Your task to perform on an android device: read, delete, or share a saved page in the chrome app Image 0: 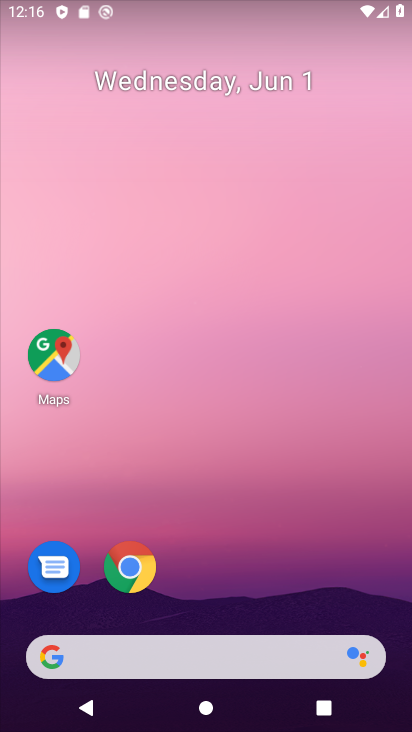
Step 0: click (132, 569)
Your task to perform on an android device: read, delete, or share a saved page in the chrome app Image 1: 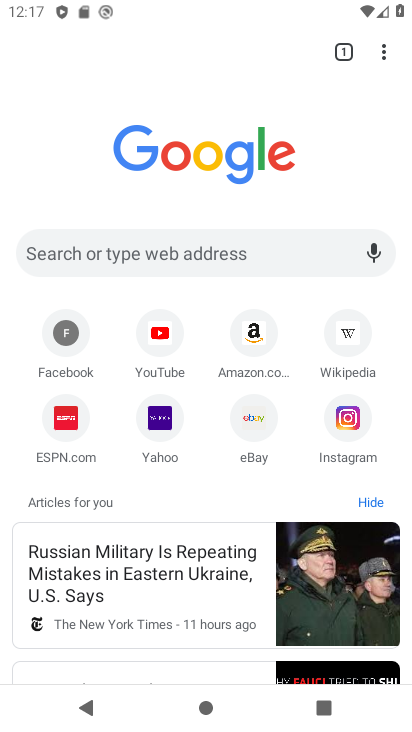
Step 1: click (375, 55)
Your task to perform on an android device: read, delete, or share a saved page in the chrome app Image 2: 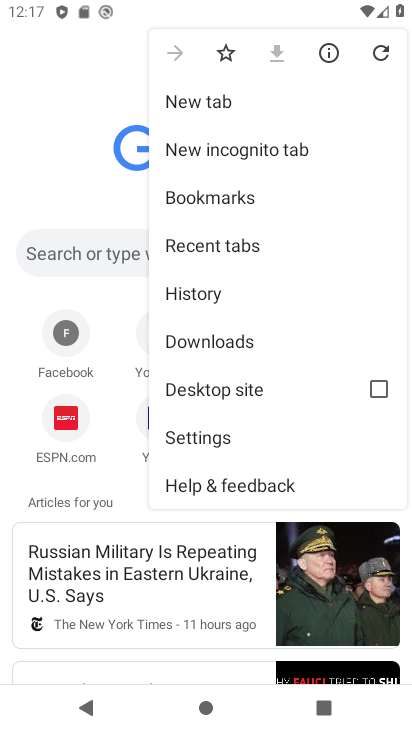
Step 2: click (200, 339)
Your task to perform on an android device: read, delete, or share a saved page in the chrome app Image 3: 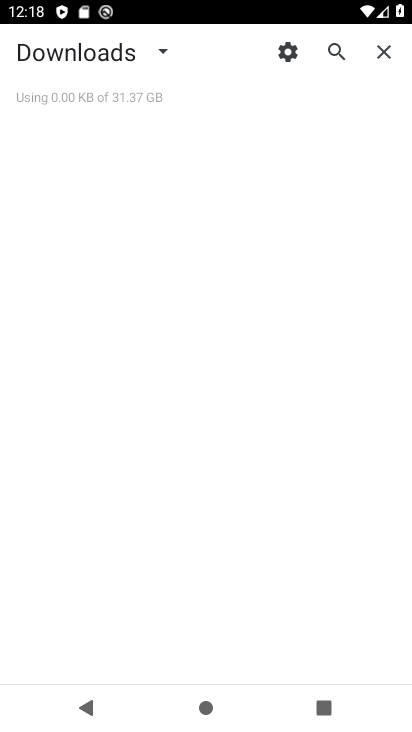
Step 3: task complete